Your task to perform on an android device: open a new tab in the chrome app Image 0: 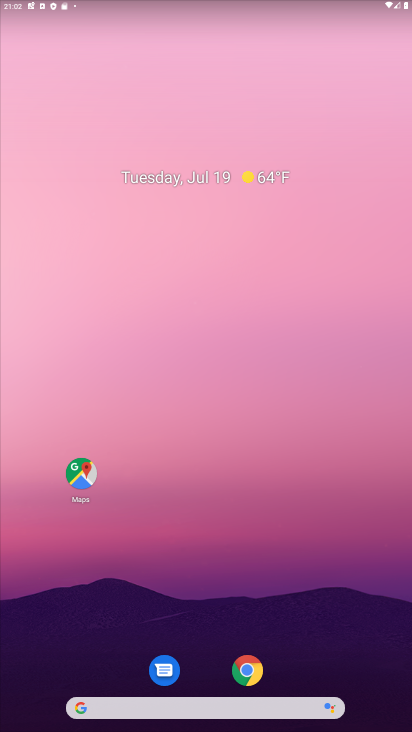
Step 0: click (247, 670)
Your task to perform on an android device: open a new tab in the chrome app Image 1: 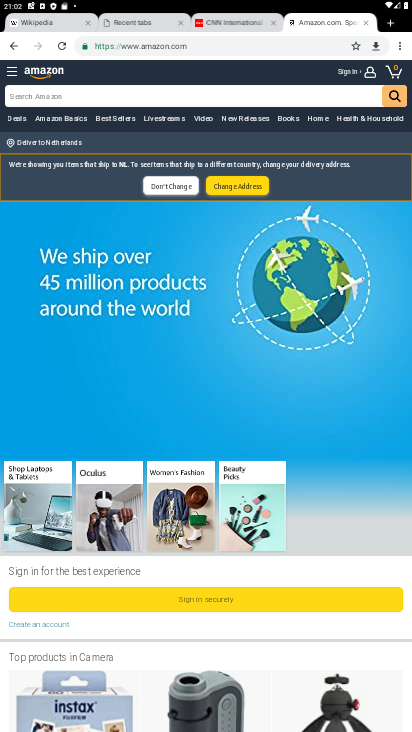
Step 1: click (393, 21)
Your task to perform on an android device: open a new tab in the chrome app Image 2: 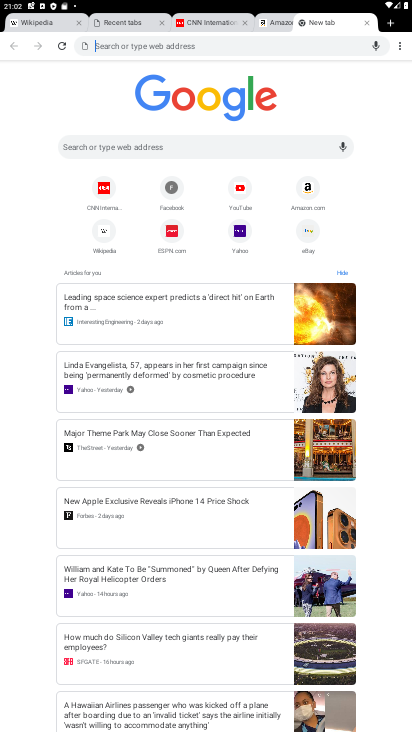
Step 2: task complete